Your task to perform on an android device: turn off improve location accuracy Image 0: 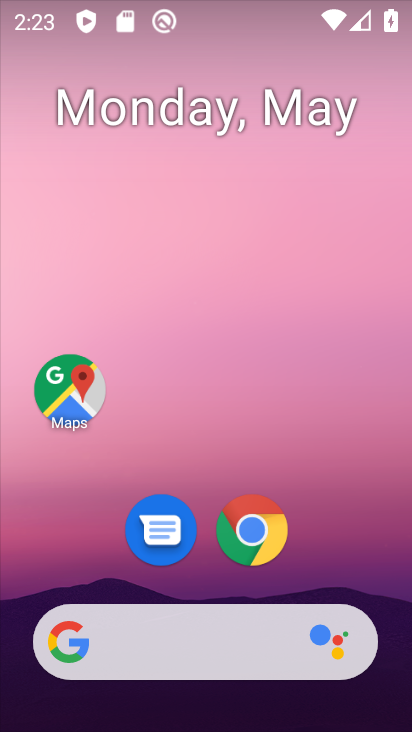
Step 0: drag from (198, 540) to (243, 118)
Your task to perform on an android device: turn off improve location accuracy Image 1: 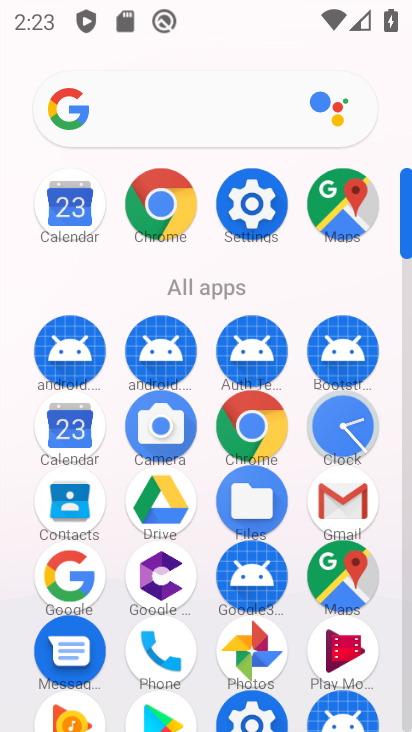
Step 1: click (251, 217)
Your task to perform on an android device: turn off improve location accuracy Image 2: 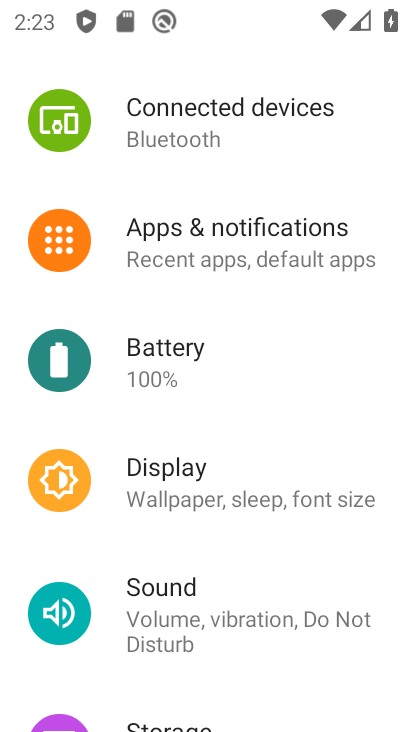
Step 2: drag from (259, 210) to (266, 286)
Your task to perform on an android device: turn off improve location accuracy Image 3: 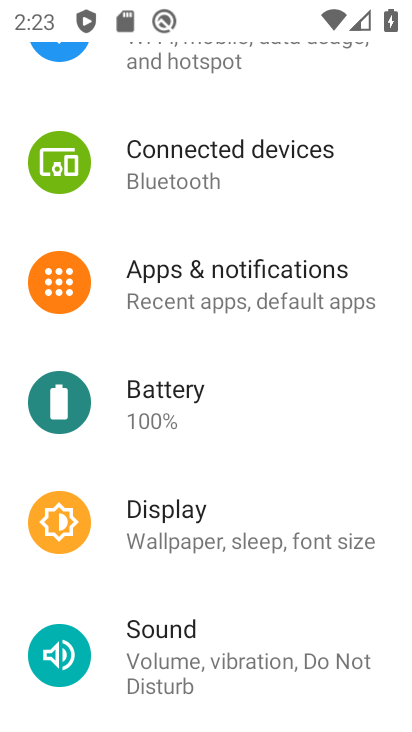
Step 3: drag from (204, 652) to (269, 192)
Your task to perform on an android device: turn off improve location accuracy Image 4: 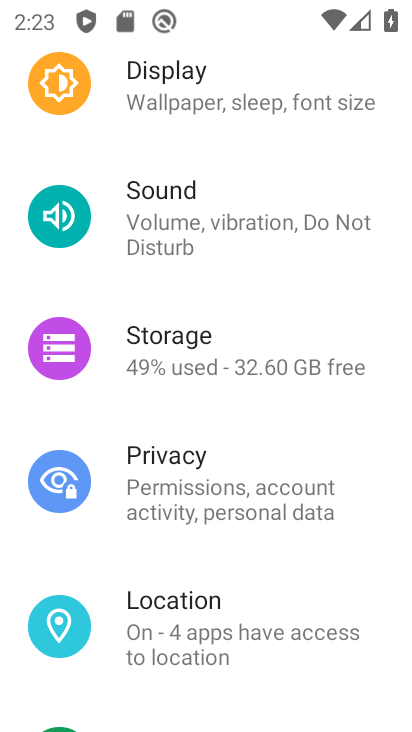
Step 4: click (175, 599)
Your task to perform on an android device: turn off improve location accuracy Image 5: 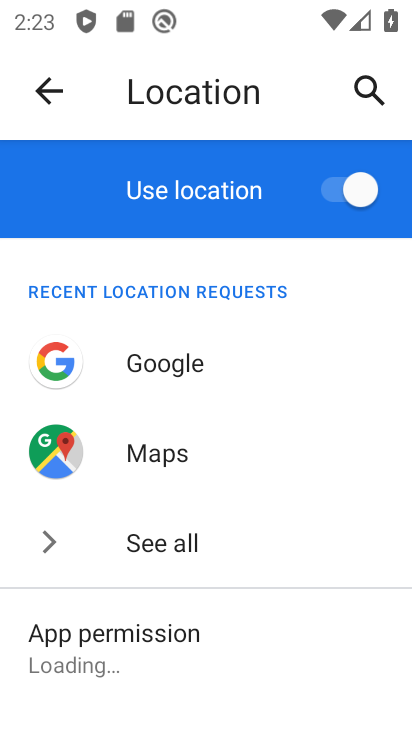
Step 5: drag from (204, 660) to (253, 210)
Your task to perform on an android device: turn off improve location accuracy Image 6: 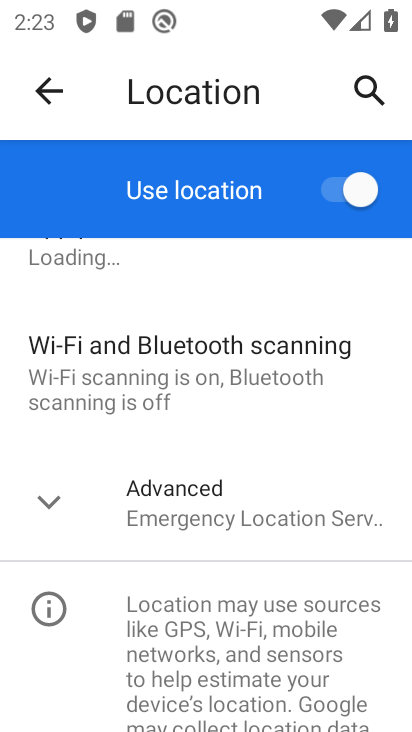
Step 6: click (202, 497)
Your task to perform on an android device: turn off improve location accuracy Image 7: 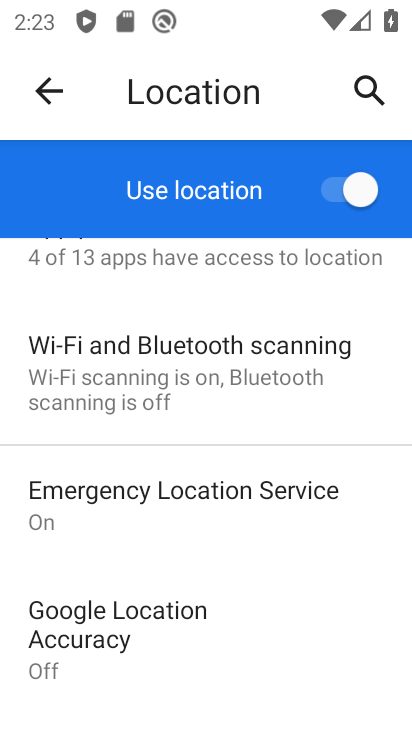
Step 7: click (103, 626)
Your task to perform on an android device: turn off improve location accuracy Image 8: 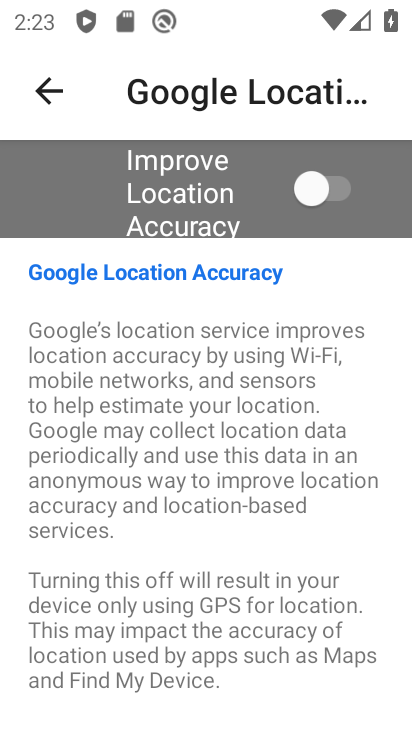
Step 8: task complete